Your task to perform on an android device: Open the calendar and show me this week's events? Image 0: 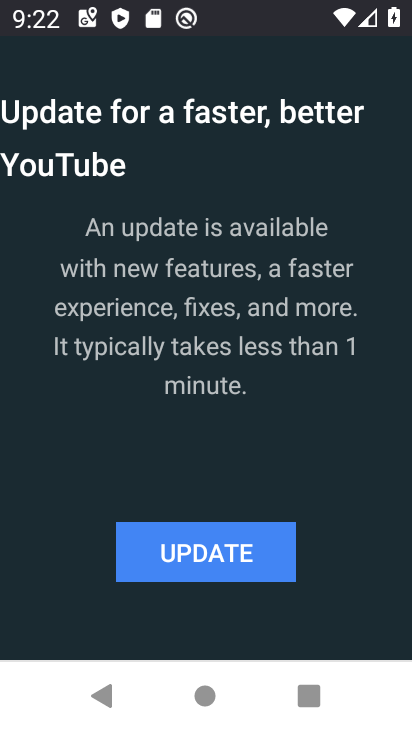
Step 0: drag from (335, 509) to (304, 171)
Your task to perform on an android device: Open the calendar and show me this week's events? Image 1: 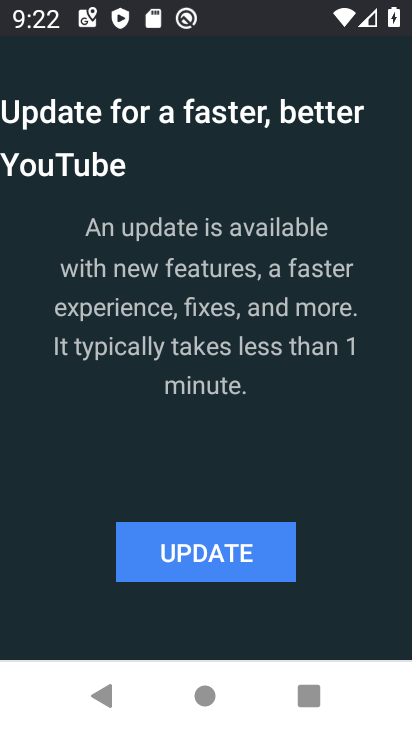
Step 1: press home button
Your task to perform on an android device: Open the calendar and show me this week's events? Image 2: 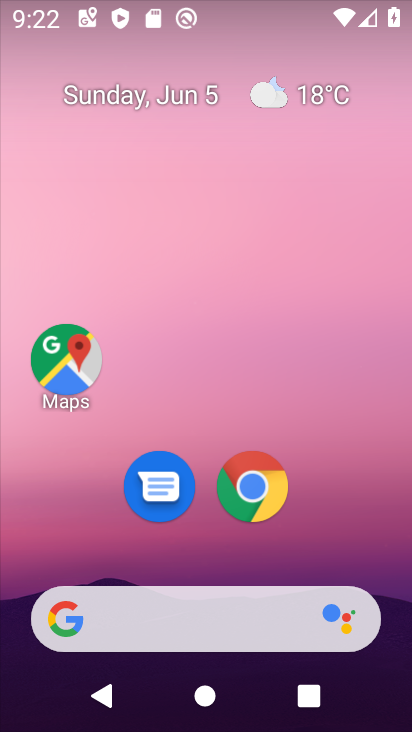
Step 2: drag from (381, 518) to (365, 110)
Your task to perform on an android device: Open the calendar and show me this week's events? Image 3: 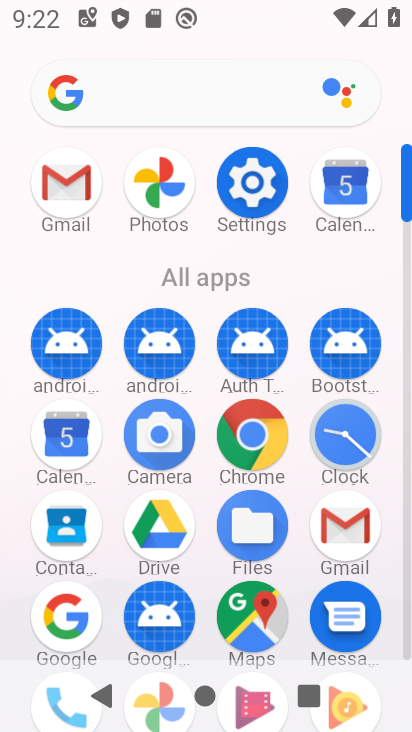
Step 3: click (343, 199)
Your task to perform on an android device: Open the calendar and show me this week's events? Image 4: 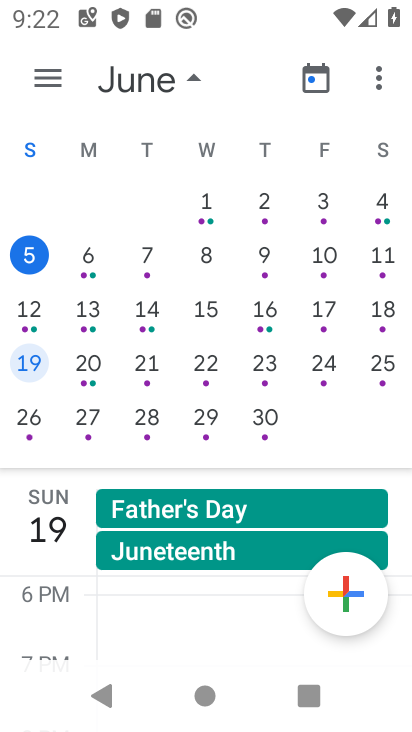
Step 4: click (16, 256)
Your task to perform on an android device: Open the calendar and show me this week's events? Image 5: 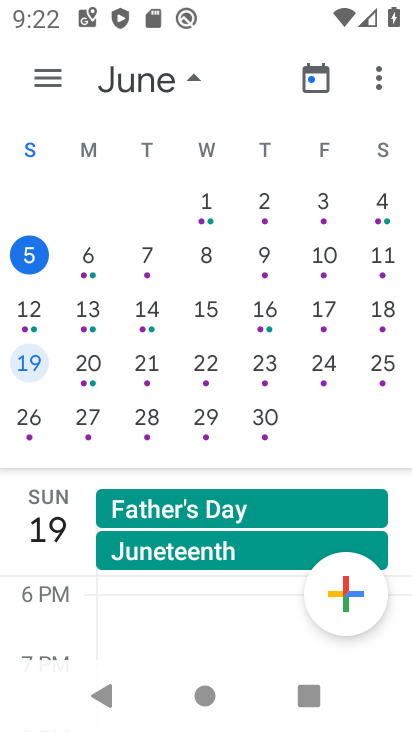
Step 5: click (34, 260)
Your task to perform on an android device: Open the calendar and show me this week's events? Image 6: 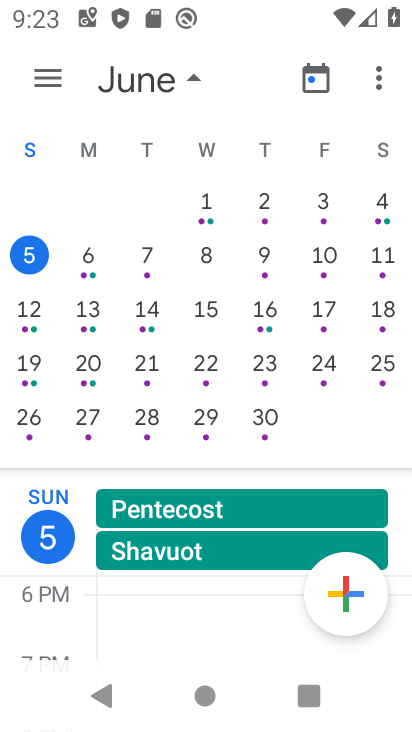
Step 6: drag from (149, 606) to (180, 338)
Your task to perform on an android device: Open the calendar and show me this week's events? Image 7: 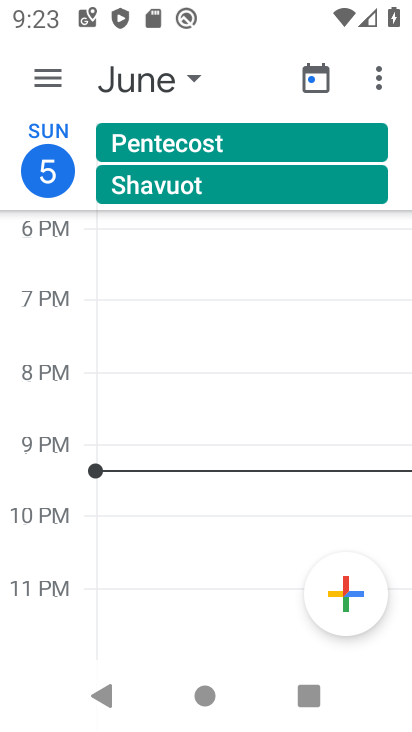
Step 7: drag from (158, 537) to (186, 283)
Your task to perform on an android device: Open the calendar and show me this week's events? Image 8: 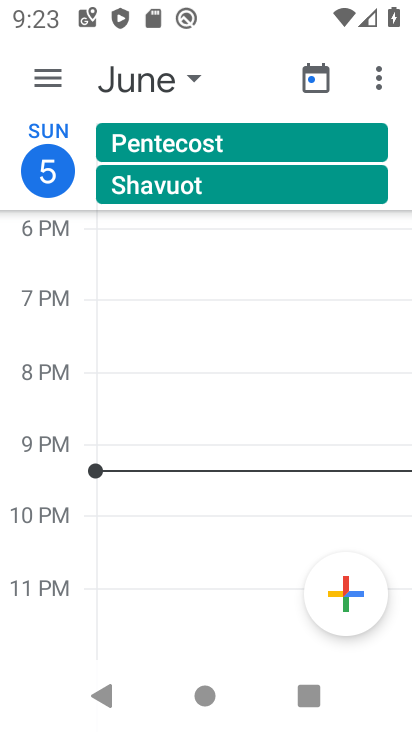
Step 8: click (46, 77)
Your task to perform on an android device: Open the calendar and show me this week's events? Image 9: 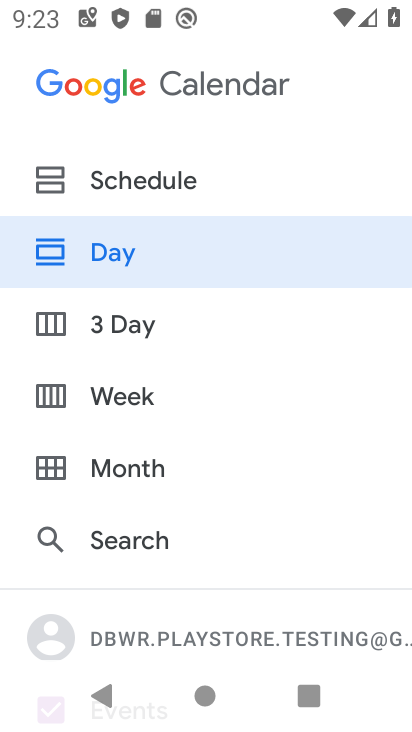
Step 9: click (74, 174)
Your task to perform on an android device: Open the calendar and show me this week's events? Image 10: 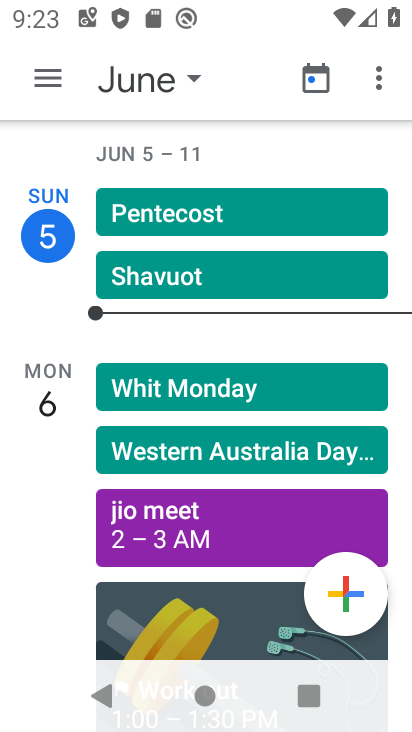
Step 10: task complete